Your task to perform on an android device: turn on javascript in the chrome app Image 0: 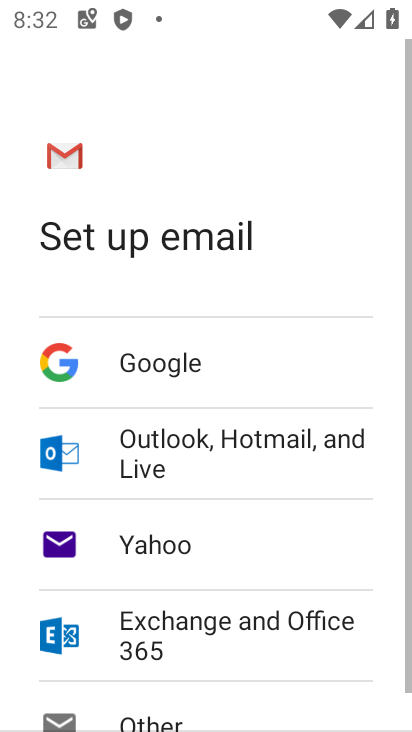
Step 0: press home button
Your task to perform on an android device: turn on javascript in the chrome app Image 1: 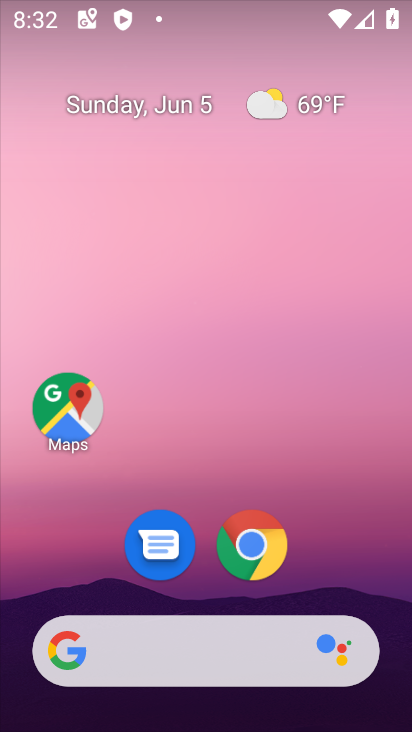
Step 1: drag from (385, 574) to (371, 183)
Your task to perform on an android device: turn on javascript in the chrome app Image 2: 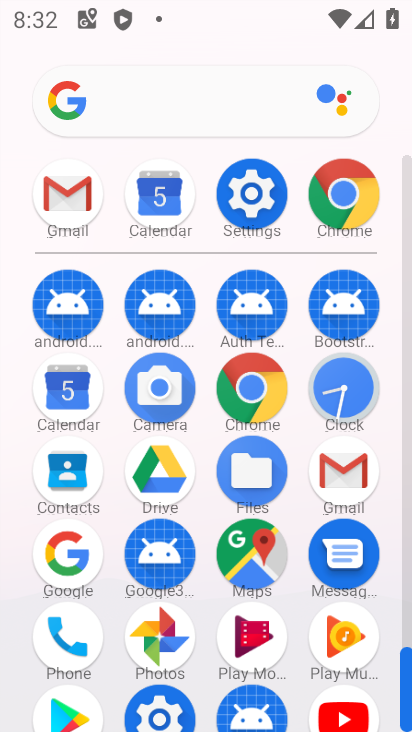
Step 2: click (273, 398)
Your task to perform on an android device: turn on javascript in the chrome app Image 3: 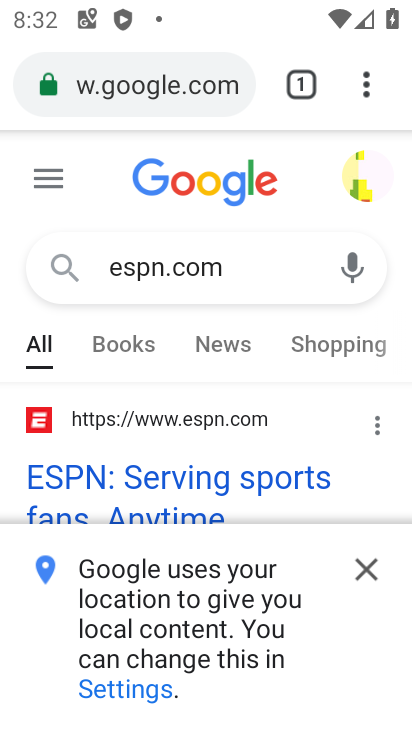
Step 3: click (367, 97)
Your task to perform on an android device: turn on javascript in the chrome app Image 4: 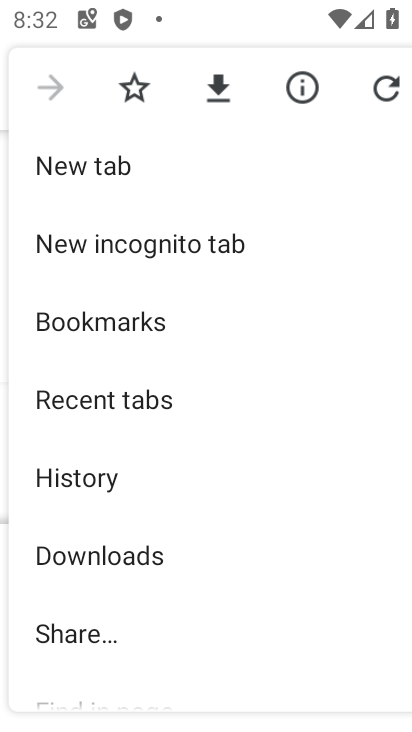
Step 4: drag from (305, 387) to (327, 289)
Your task to perform on an android device: turn on javascript in the chrome app Image 5: 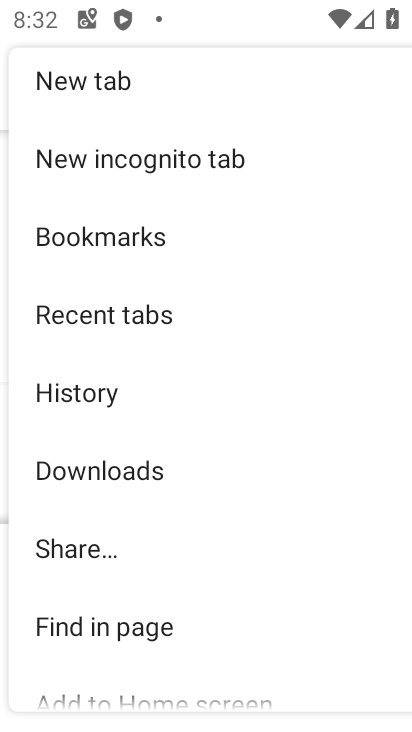
Step 5: drag from (329, 409) to (341, 220)
Your task to perform on an android device: turn on javascript in the chrome app Image 6: 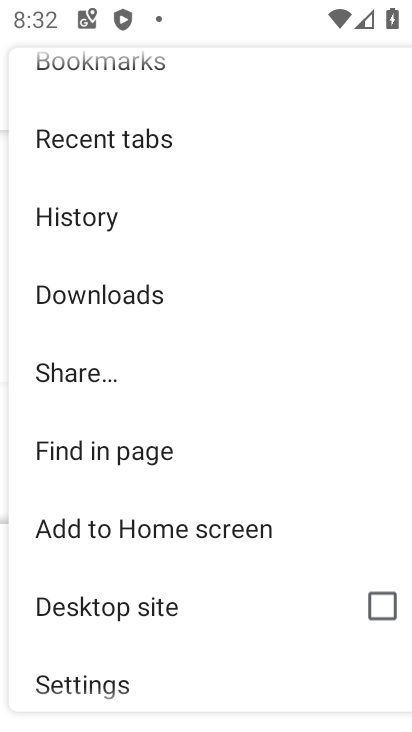
Step 6: drag from (329, 510) to (340, 320)
Your task to perform on an android device: turn on javascript in the chrome app Image 7: 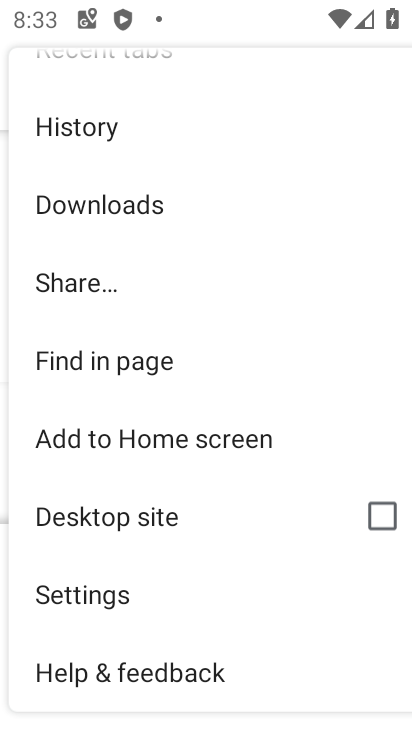
Step 7: click (146, 610)
Your task to perform on an android device: turn on javascript in the chrome app Image 8: 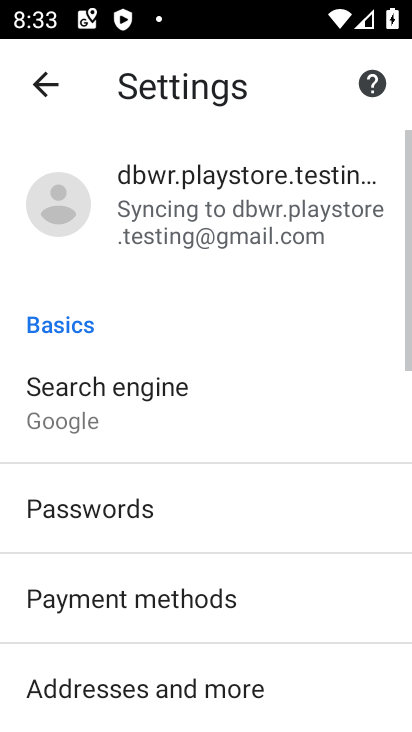
Step 8: drag from (282, 589) to (298, 469)
Your task to perform on an android device: turn on javascript in the chrome app Image 9: 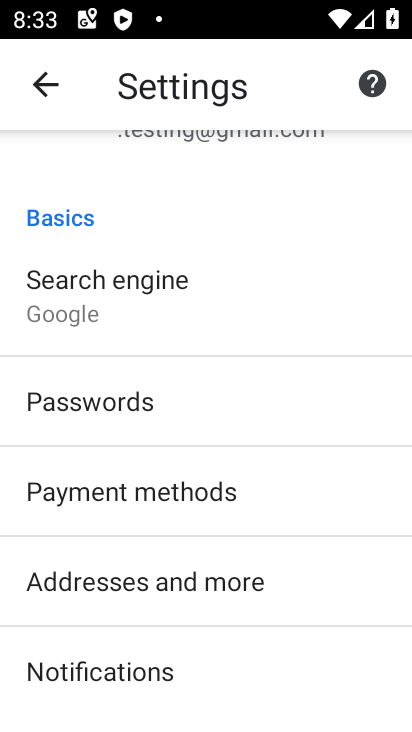
Step 9: drag from (345, 540) to (345, 481)
Your task to perform on an android device: turn on javascript in the chrome app Image 10: 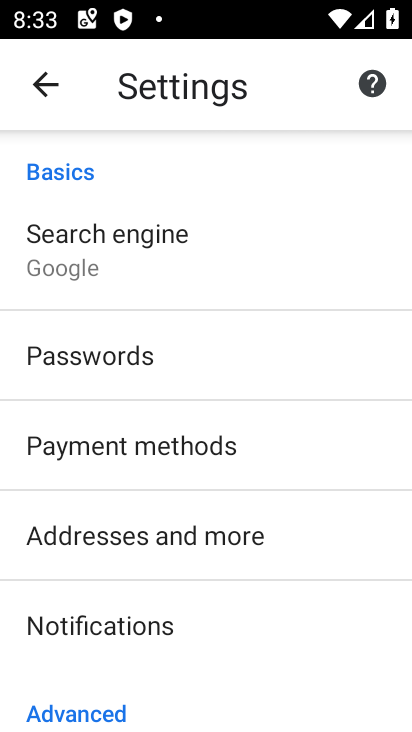
Step 10: drag from (332, 592) to (343, 485)
Your task to perform on an android device: turn on javascript in the chrome app Image 11: 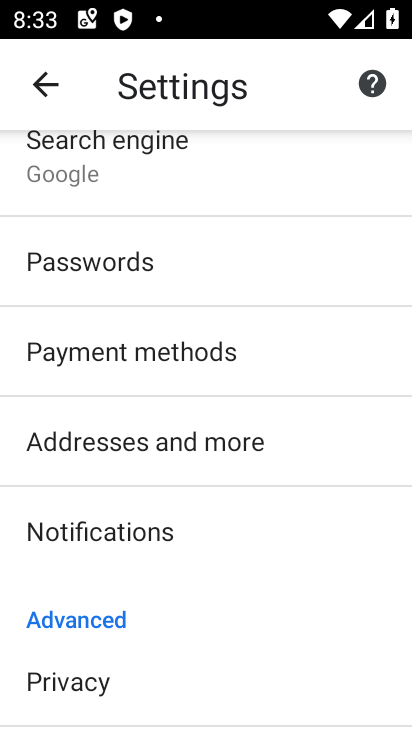
Step 11: drag from (333, 609) to (348, 500)
Your task to perform on an android device: turn on javascript in the chrome app Image 12: 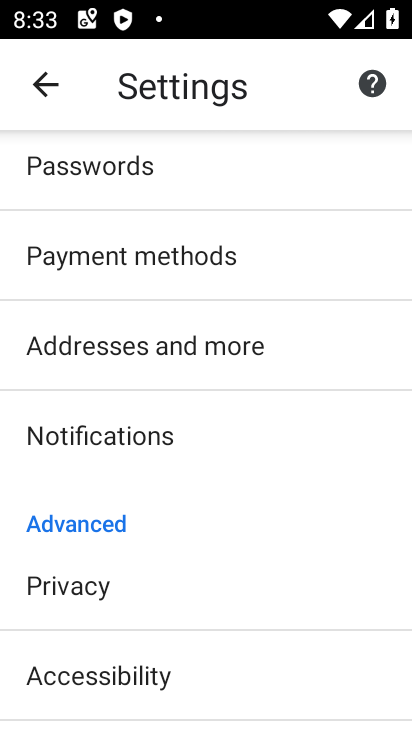
Step 12: drag from (372, 548) to (385, 435)
Your task to perform on an android device: turn on javascript in the chrome app Image 13: 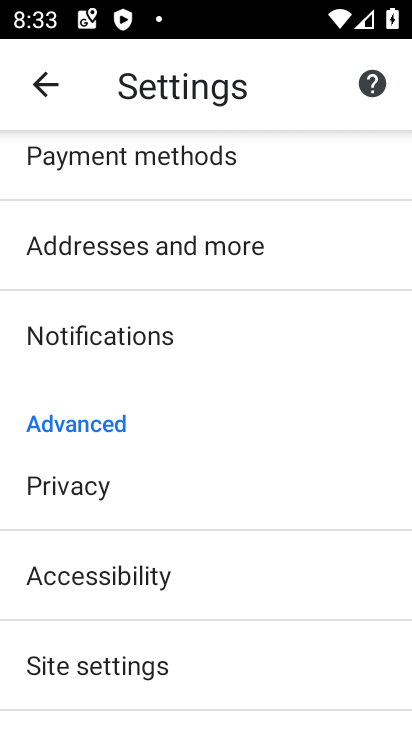
Step 13: drag from (354, 564) to (354, 418)
Your task to perform on an android device: turn on javascript in the chrome app Image 14: 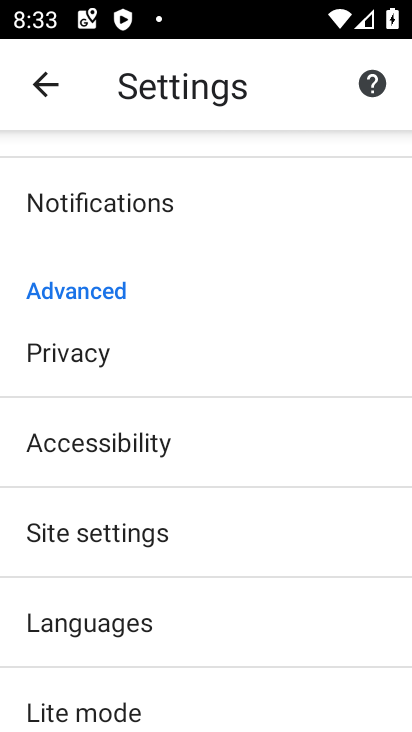
Step 14: drag from (305, 535) to (308, 428)
Your task to perform on an android device: turn on javascript in the chrome app Image 15: 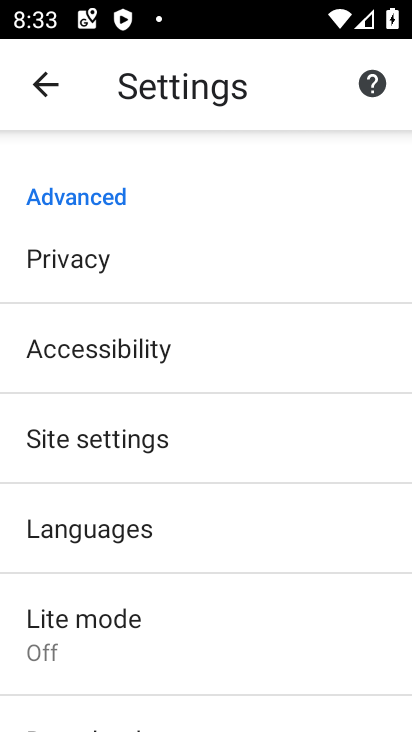
Step 15: click (273, 430)
Your task to perform on an android device: turn on javascript in the chrome app Image 16: 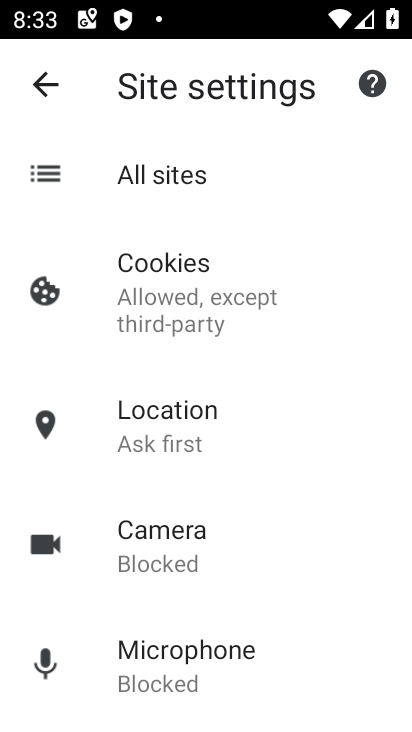
Step 16: drag from (317, 558) to (327, 420)
Your task to perform on an android device: turn on javascript in the chrome app Image 17: 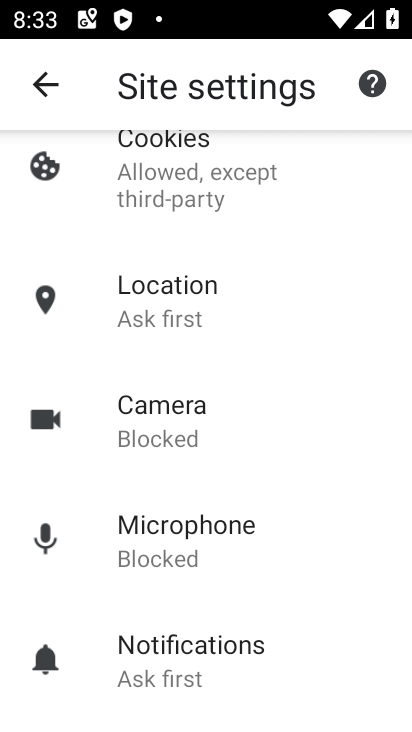
Step 17: drag from (327, 559) to (338, 441)
Your task to perform on an android device: turn on javascript in the chrome app Image 18: 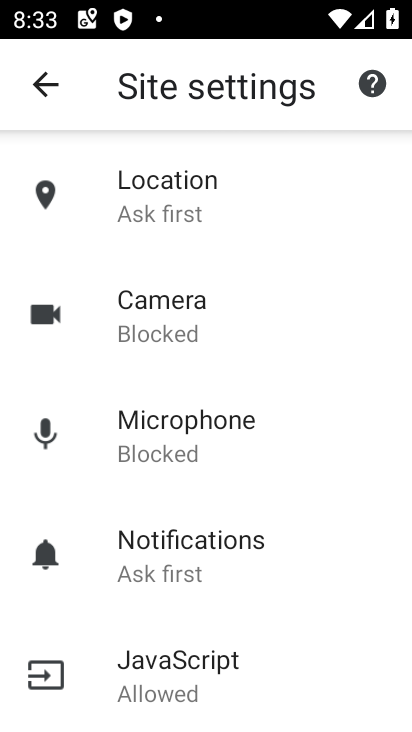
Step 18: drag from (343, 582) to (346, 375)
Your task to perform on an android device: turn on javascript in the chrome app Image 19: 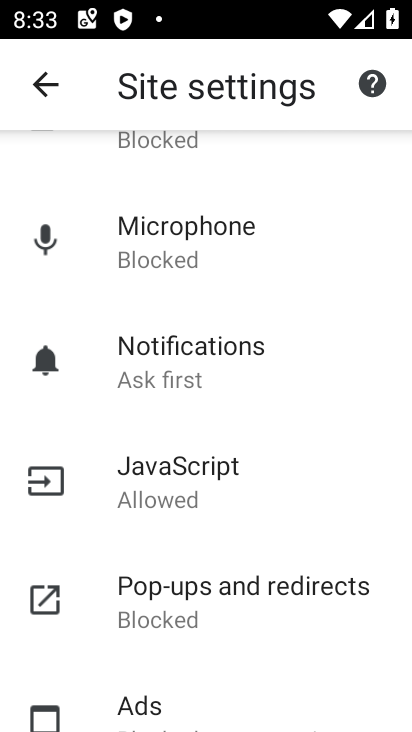
Step 19: click (261, 497)
Your task to perform on an android device: turn on javascript in the chrome app Image 20: 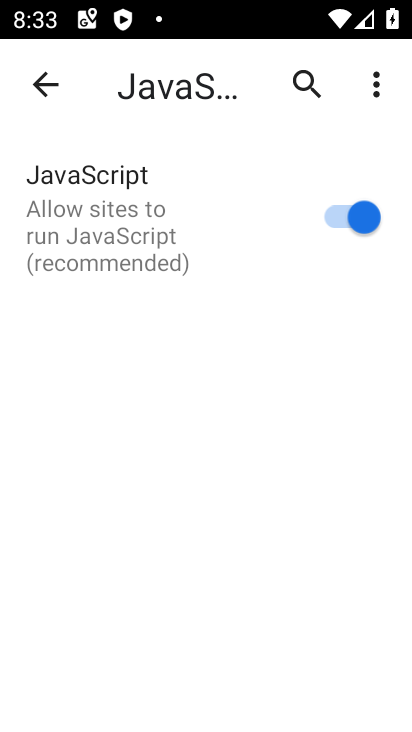
Step 20: task complete